Your task to perform on an android device: What's on my calendar tomorrow? Image 0: 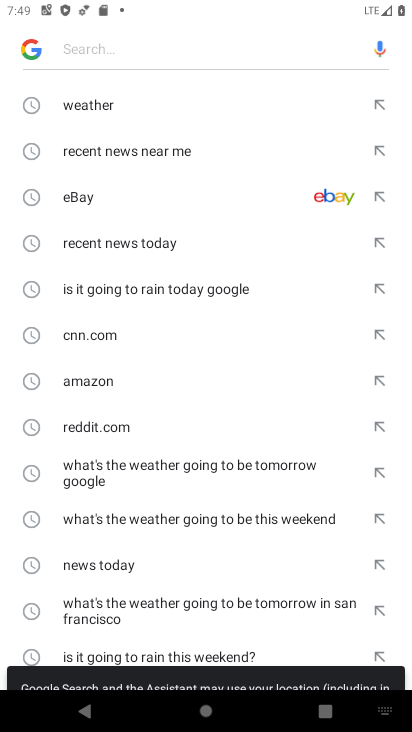
Step 0: press home button
Your task to perform on an android device: What's on my calendar tomorrow? Image 1: 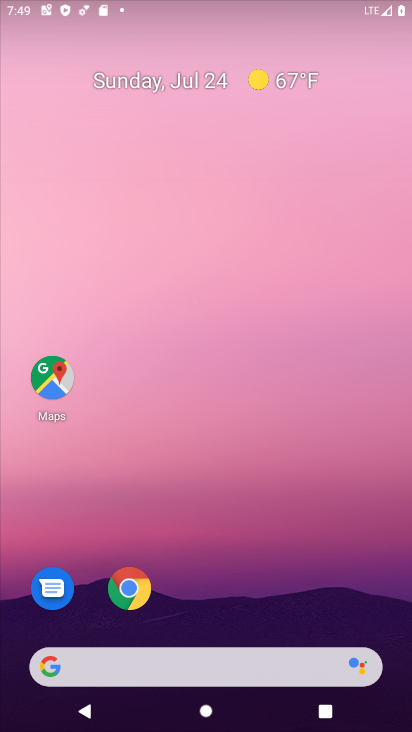
Step 1: click (212, 229)
Your task to perform on an android device: What's on my calendar tomorrow? Image 2: 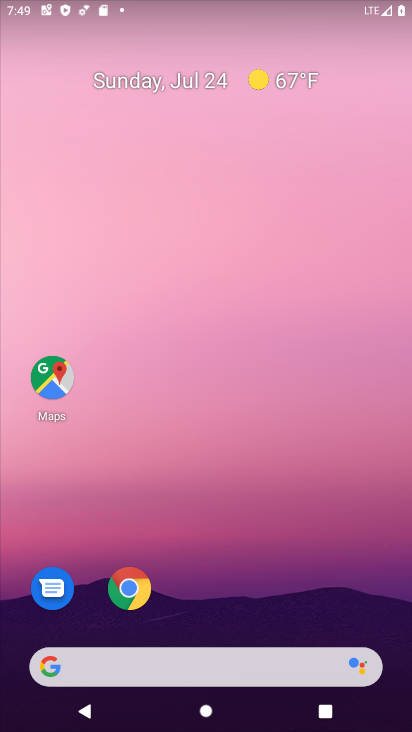
Step 2: drag from (177, 642) to (189, 279)
Your task to perform on an android device: What's on my calendar tomorrow? Image 3: 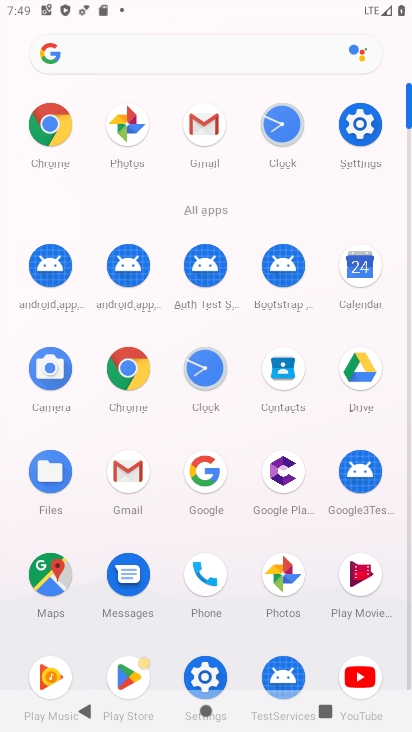
Step 3: click (355, 272)
Your task to perform on an android device: What's on my calendar tomorrow? Image 4: 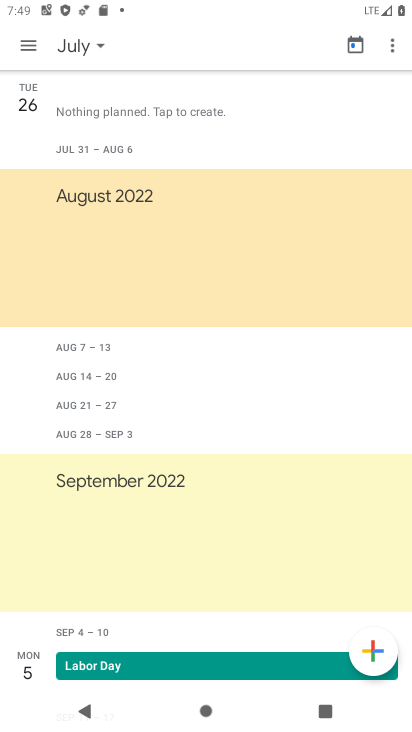
Step 4: click (24, 45)
Your task to perform on an android device: What's on my calendar tomorrow? Image 5: 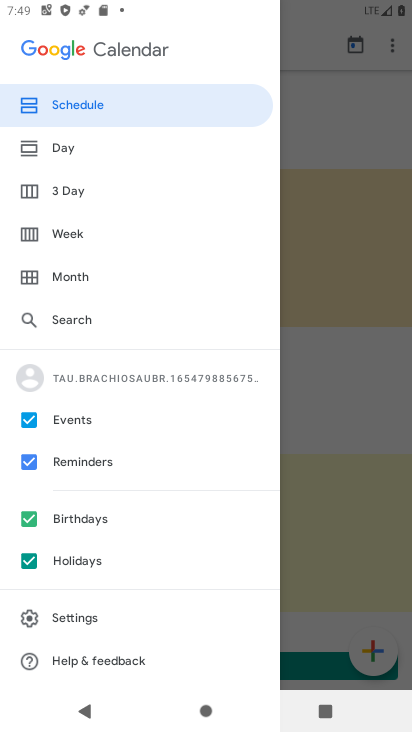
Step 5: click (80, 273)
Your task to perform on an android device: What's on my calendar tomorrow? Image 6: 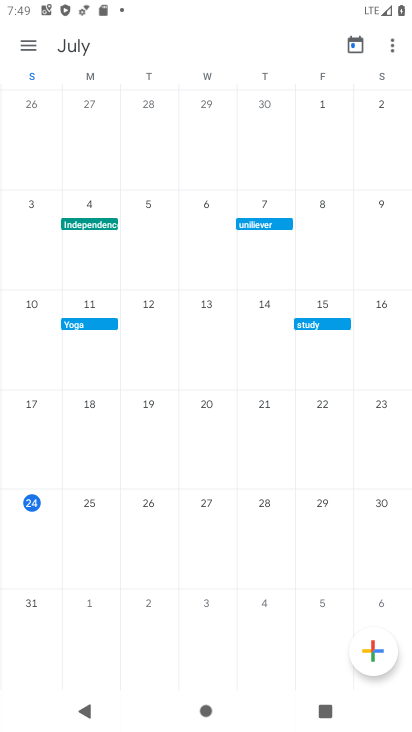
Step 6: click (155, 505)
Your task to perform on an android device: What's on my calendar tomorrow? Image 7: 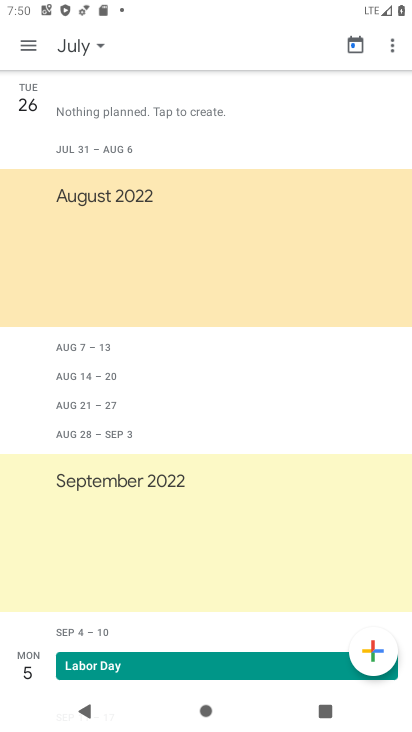
Step 7: task complete